Your task to perform on an android device: turn on priority inbox in the gmail app Image 0: 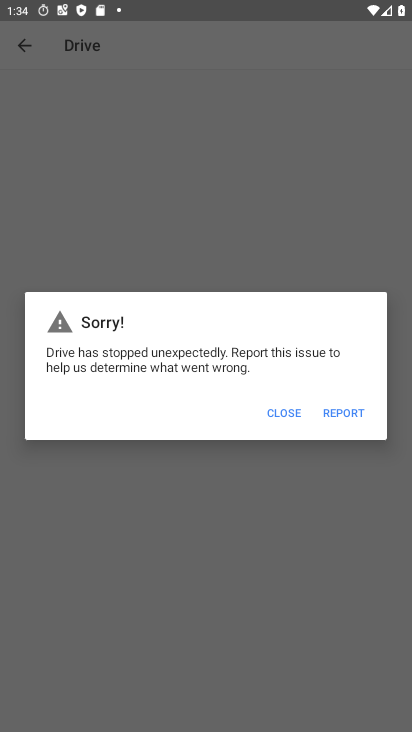
Step 0: press home button
Your task to perform on an android device: turn on priority inbox in the gmail app Image 1: 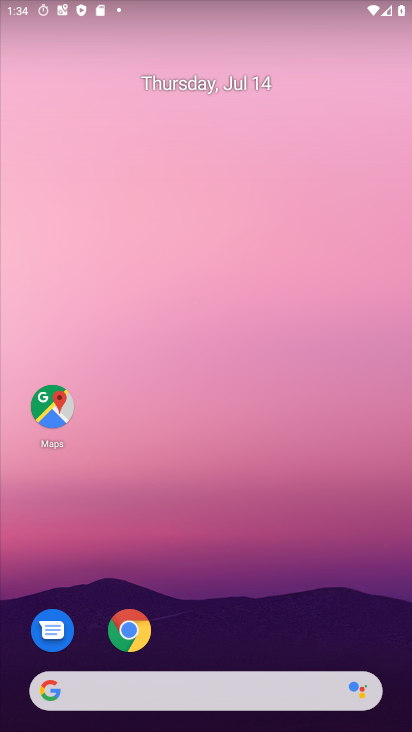
Step 1: drag from (196, 682) to (172, 143)
Your task to perform on an android device: turn on priority inbox in the gmail app Image 2: 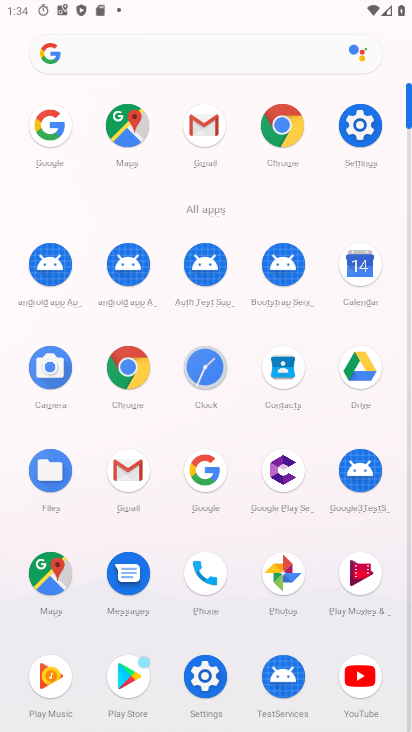
Step 2: click (137, 481)
Your task to perform on an android device: turn on priority inbox in the gmail app Image 3: 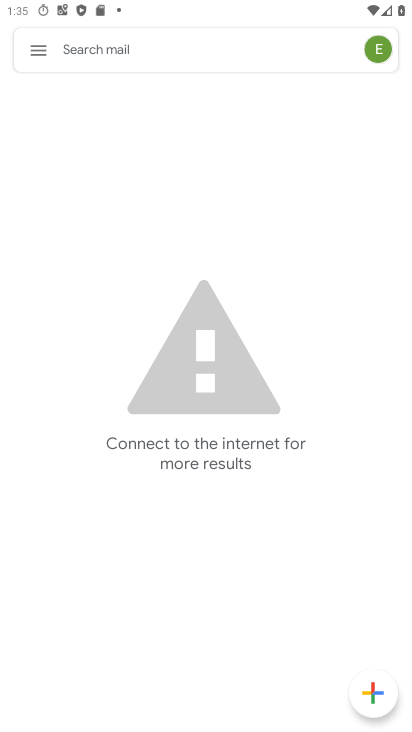
Step 3: click (37, 60)
Your task to perform on an android device: turn on priority inbox in the gmail app Image 4: 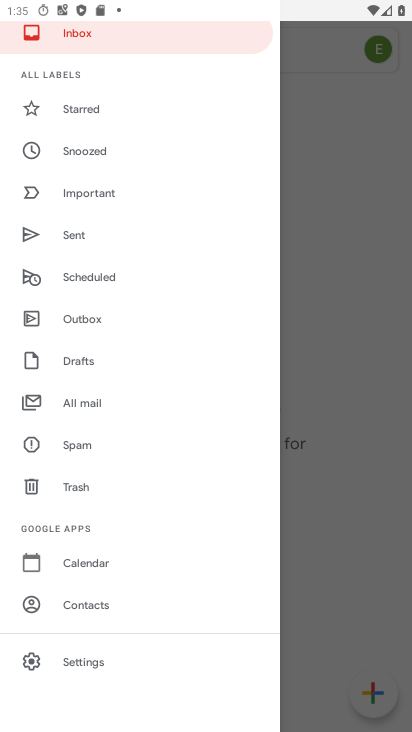
Step 4: click (98, 662)
Your task to perform on an android device: turn on priority inbox in the gmail app Image 5: 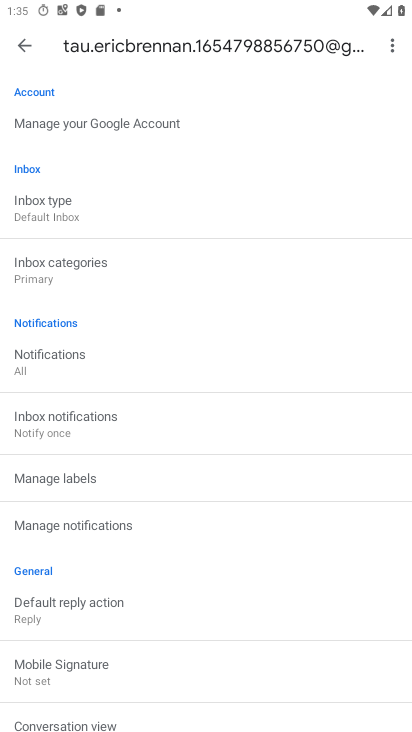
Step 5: click (56, 207)
Your task to perform on an android device: turn on priority inbox in the gmail app Image 6: 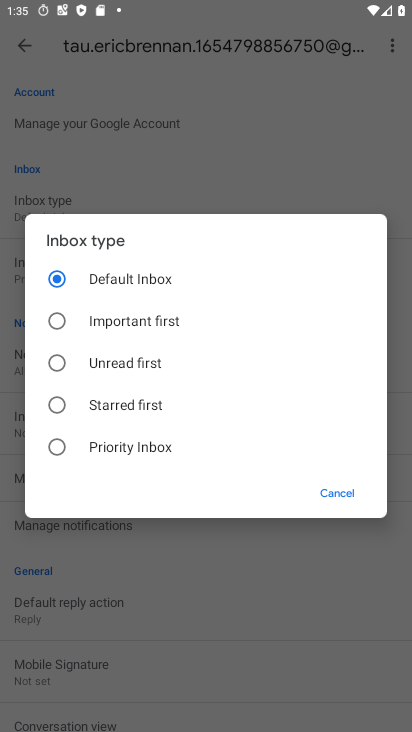
Step 6: click (125, 445)
Your task to perform on an android device: turn on priority inbox in the gmail app Image 7: 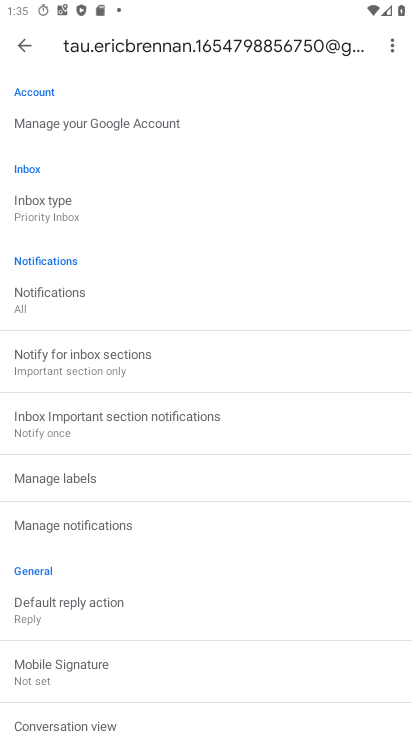
Step 7: task complete